Your task to perform on an android device: create a new album in the google photos Image 0: 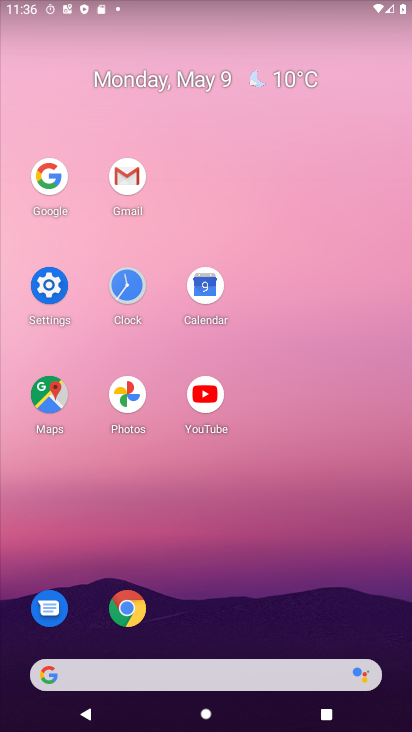
Step 0: click (130, 603)
Your task to perform on an android device: create a new album in the google photos Image 1: 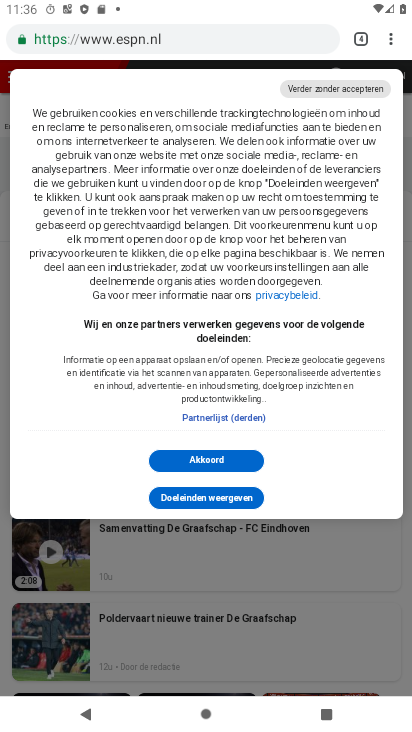
Step 1: press home button
Your task to perform on an android device: create a new album in the google photos Image 2: 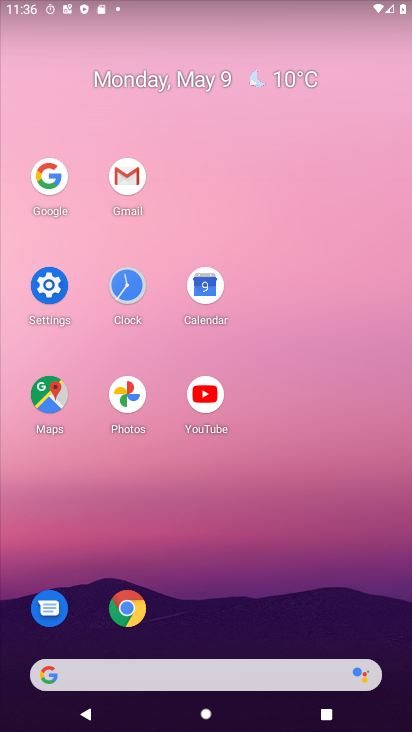
Step 2: click (129, 388)
Your task to perform on an android device: create a new album in the google photos Image 3: 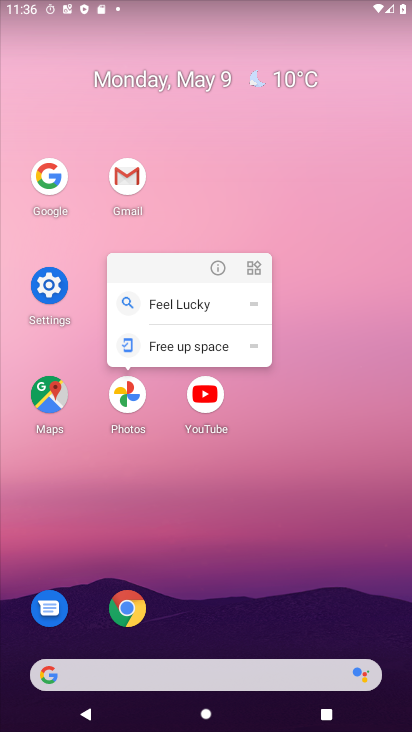
Step 3: click (130, 396)
Your task to perform on an android device: create a new album in the google photos Image 4: 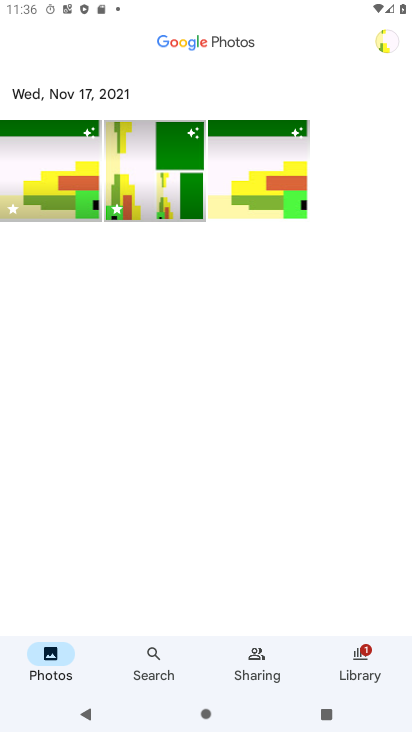
Step 4: click (391, 38)
Your task to perform on an android device: create a new album in the google photos Image 5: 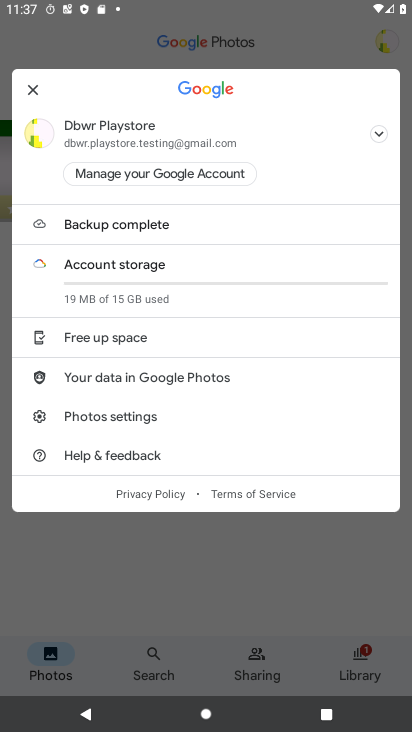
Step 5: click (31, 80)
Your task to perform on an android device: create a new album in the google photos Image 6: 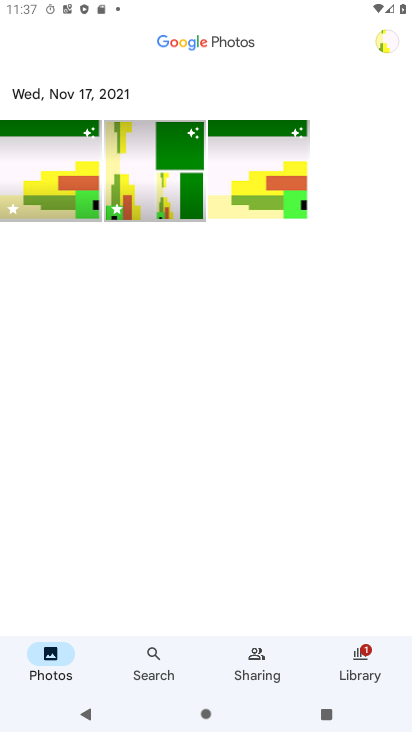
Step 6: click (356, 668)
Your task to perform on an android device: create a new album in the google photos Image 7: 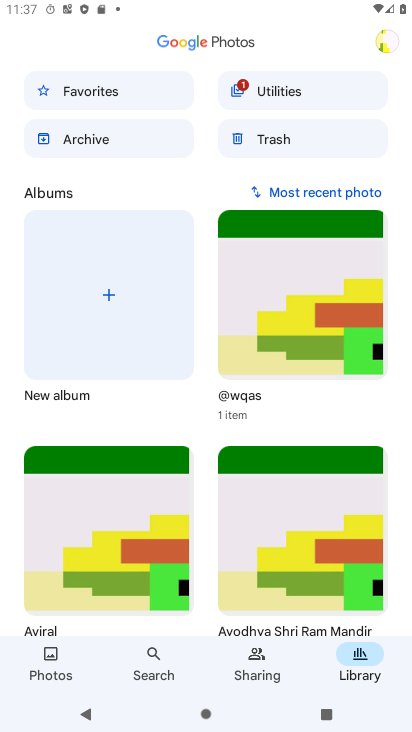
Step 7: click (111, 309)
Your task to perform on an android device: create a new album in the google photos Image 8: 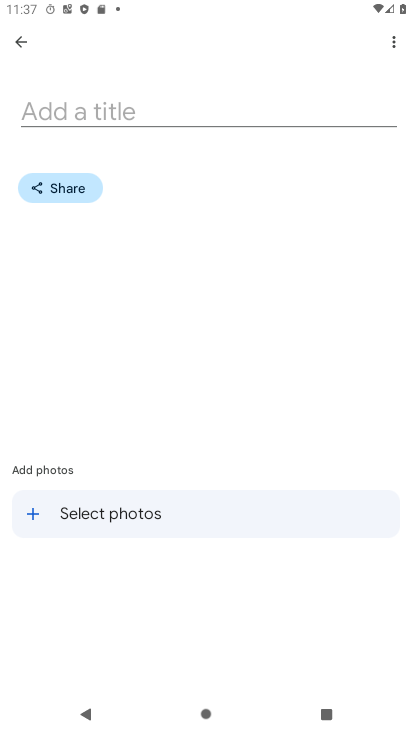
Step 8: click (109, 114)
Your task to perform on an android device: create a new album in the google photos Image 9: 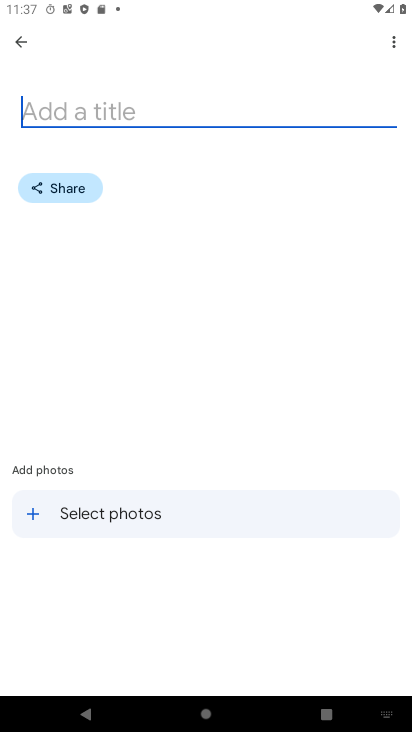
Step 9: type "ddd"
Your task to perform on an android device: create a new album in the google photos Image 10: 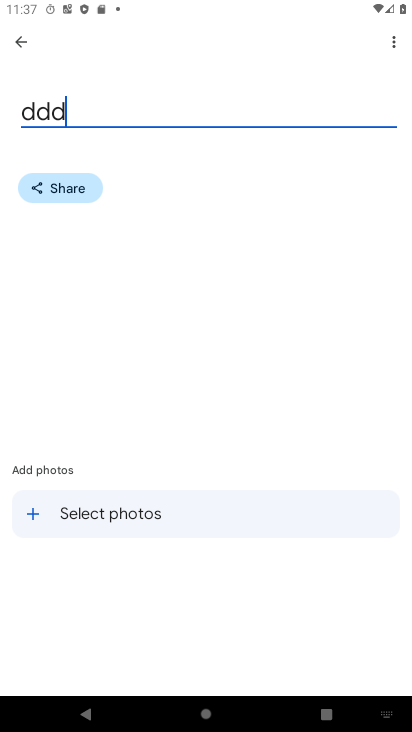
Step 10: click (83, 520)
Your task to perform on an android device: create a new album in the google photos Image 11: 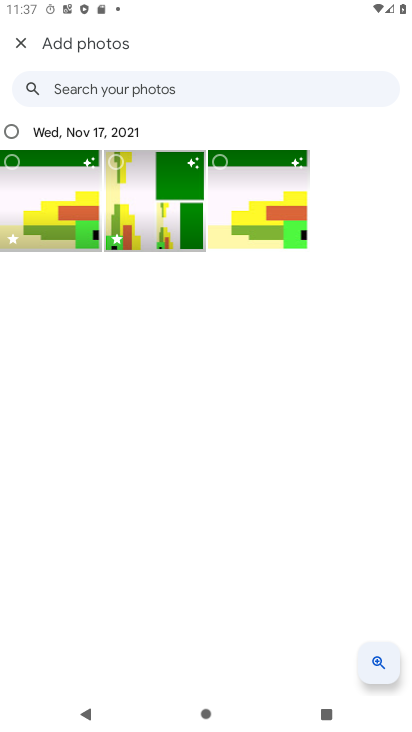
Step 11: click (14, 166)
Your task to perform on an android device: create a new album in the google photos Image 12: 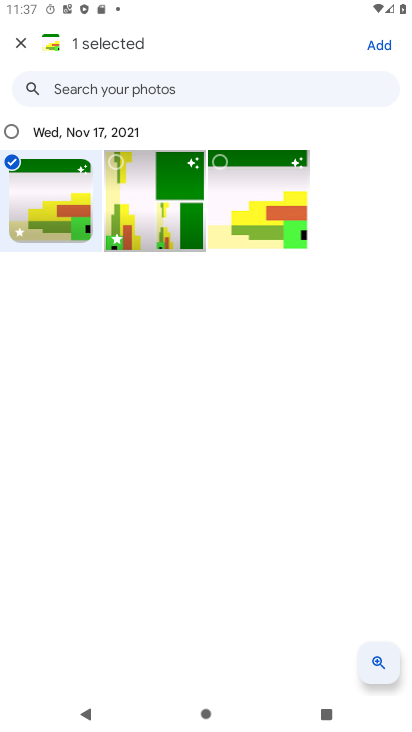
Step 12: click (118, 162)
Your task to perform on an android device: create a new album in the google photos Image 13: 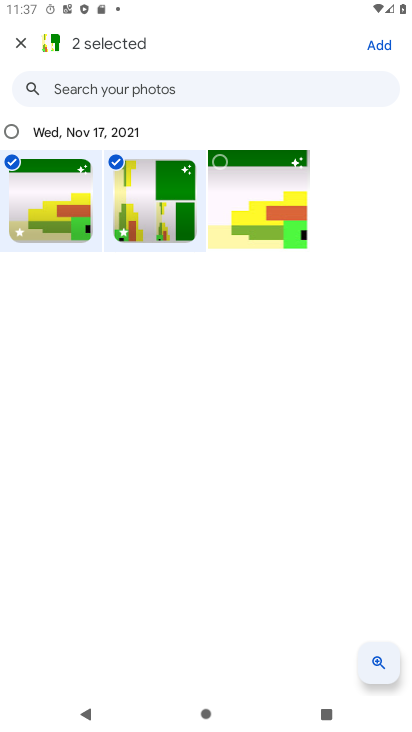
Step 13: click (384, 46)
Your task to perform on an android device: create a new album in the google photos Image 14: 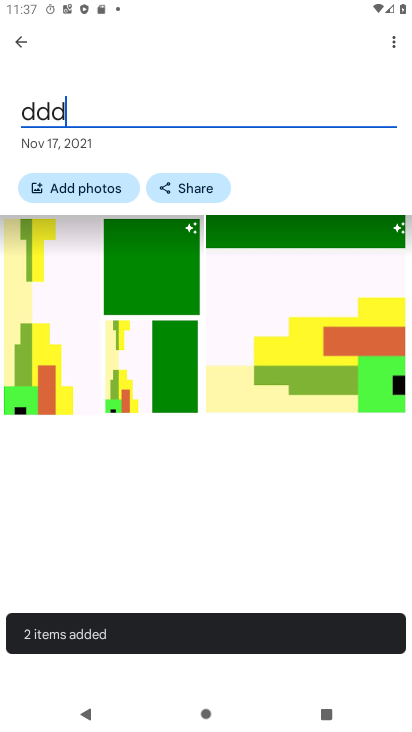
Step 14: task complete